Your task to perform on an android device: Show me popular videos on Youtube Image 0: 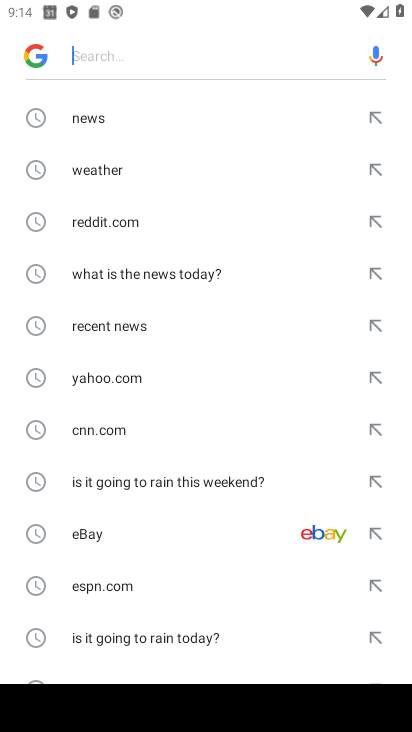
Step 0: press home button
Your task to perform on an android device: Show me popular videos on Youtube Image 1: 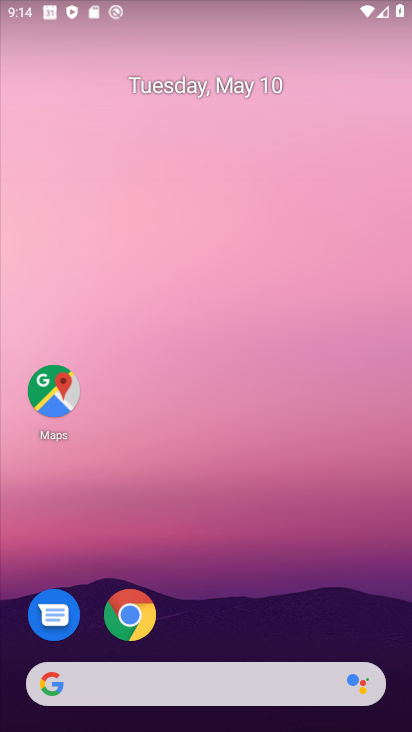
Step 1: drag from (242, 663) to (239, 7)
Your task to perform on an android device: Show me popular videos on Youtube Image 2: 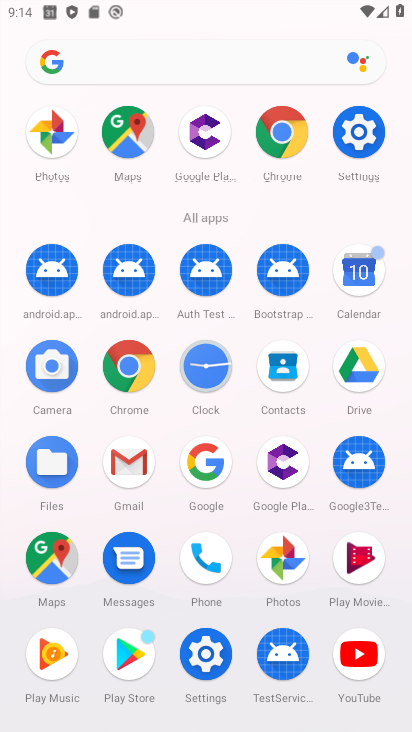
Step 2: click (346, 624)
Your task to perform on an android device: Show me popular videos on Youtube Image 3: 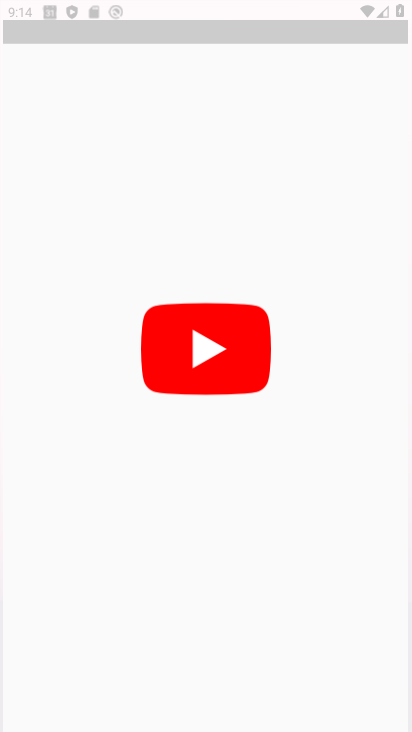
Step 3: click (360, 656)
Your task to perform on an android device: Show me popular videos on Youtube Image 4: 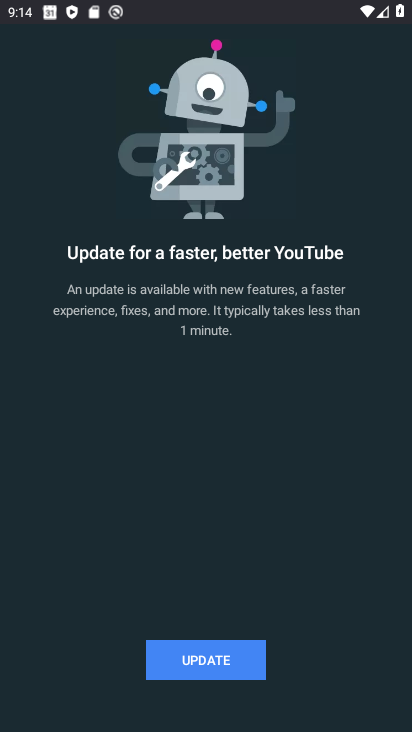
Step 4: drag from (360, 656) to (246, 656)
Your task to perform on an android device: Show me popular videos on Youtube Image 5: 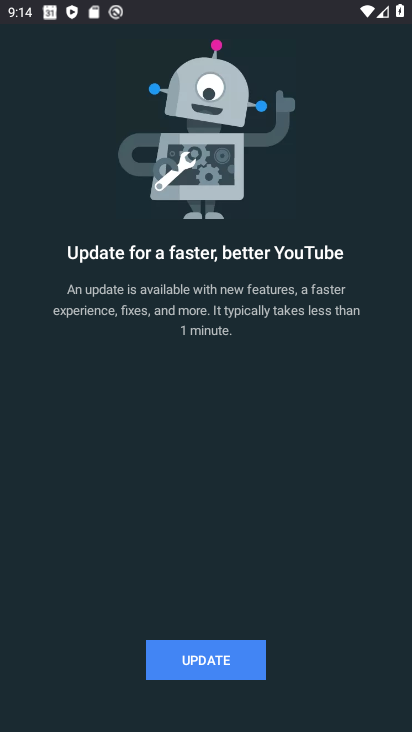
Step 5: drag from (360, 656) to (246, 656)
Your task to perform on an android device: Show me popular videos on Youtube Image 6: 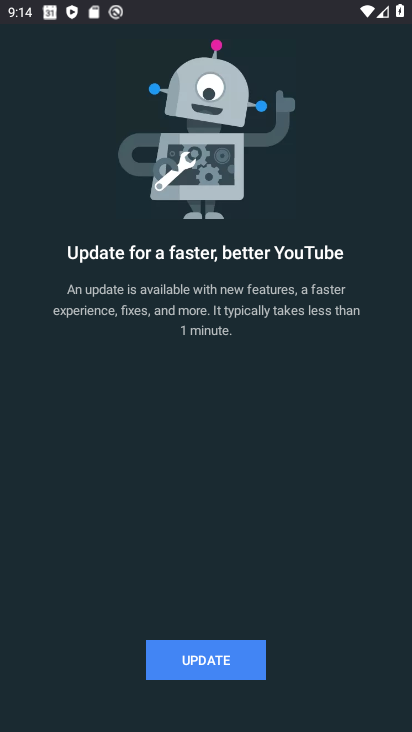
Step 6: click (180, 662)
Your task to perform on an android device: Show me popular videos on Youtube Image 7: 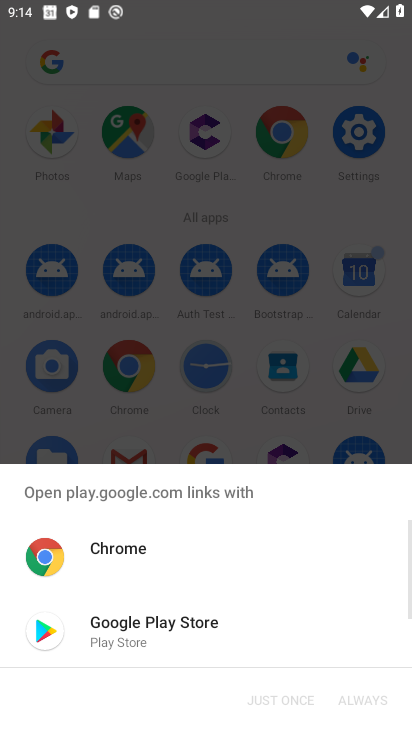
Step 7: click (206, 637)
Your task to perform on an android device: Show me popular videos on Youtube Image 8: 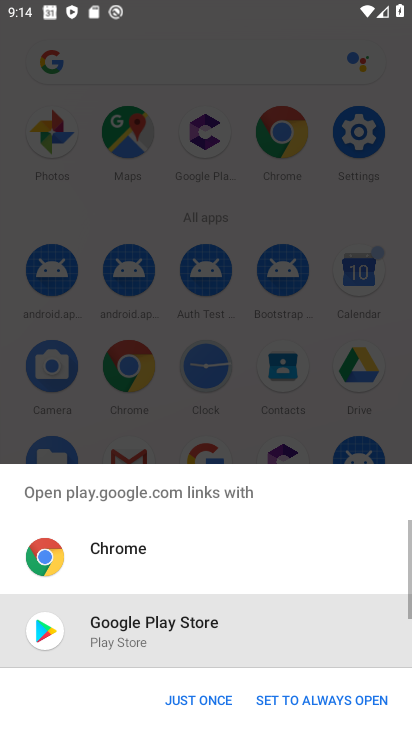
Step 8: click (213, 693)
Your task to perform on an android device: Show me popular videos on Youtube Image 9: 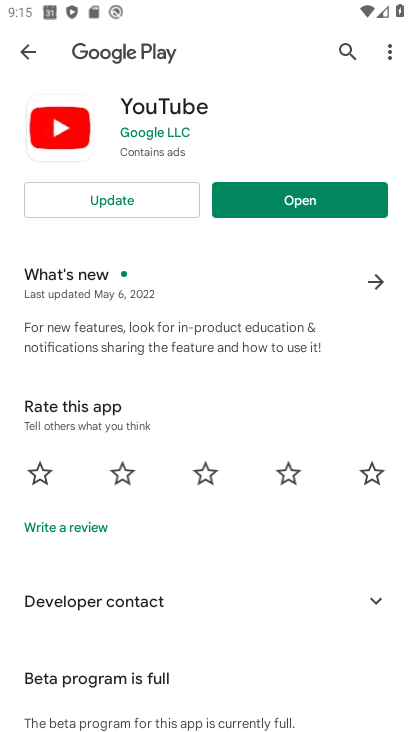
Step 9: click (161, 190)
Your task to perform on an android device: Show me popular videos on Youtube Image 10: 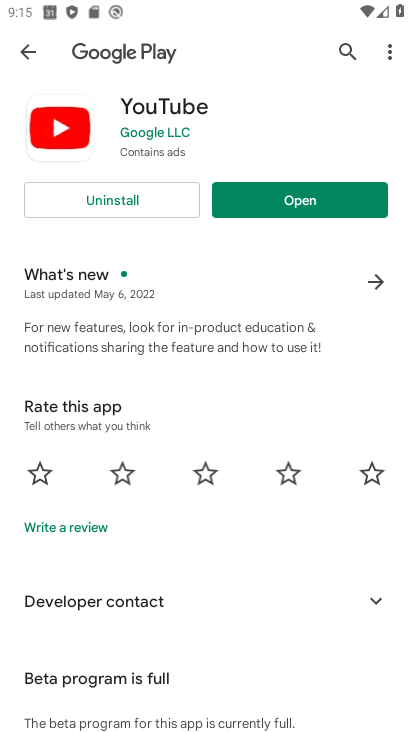
Step 10: click (285, 208)
Your task to perform on an android device: Show me popular videos on Youtube Image 11: 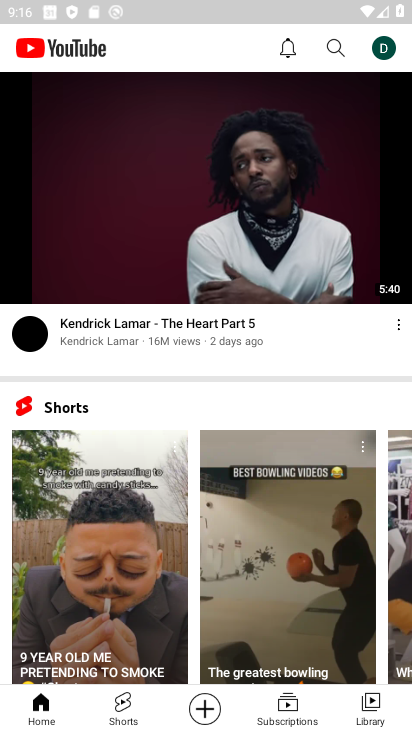
Step 11: task complete